Your task to perform on an android device: Turn off the flashlight Image 0: 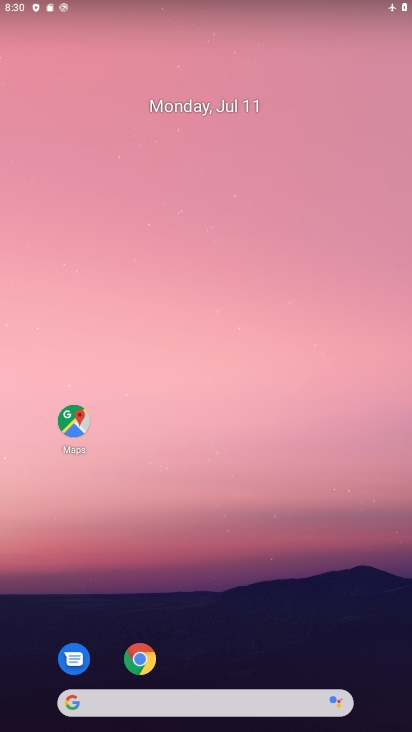
Step 0: drag from (192, 648) to (144, 133)
Your task to perform on an android device: Turn off the flashlight Image 1: 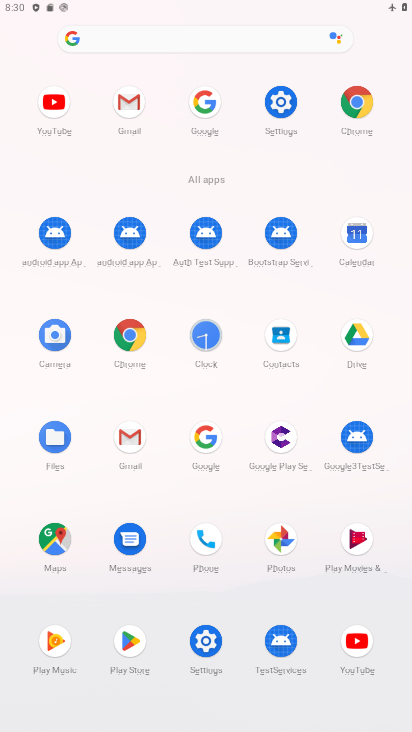
Step 1: click (268, 103)
Your task to perform on an android device: Turn off the flashlight Image 2: 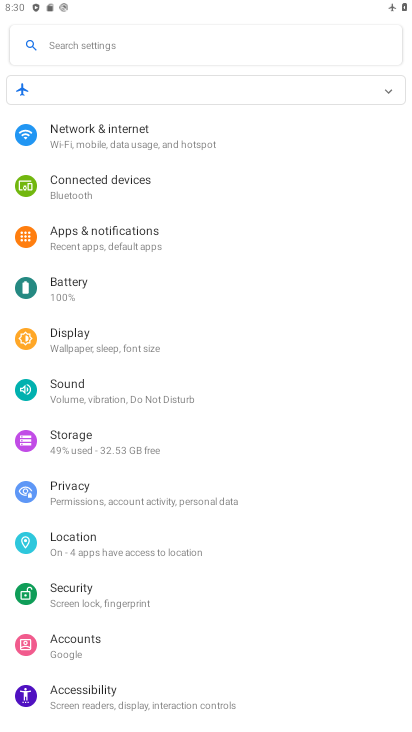
Step 2: task complete